Your task to perform on an android device: Open the phone app and click the voicemail tab. Image 0: 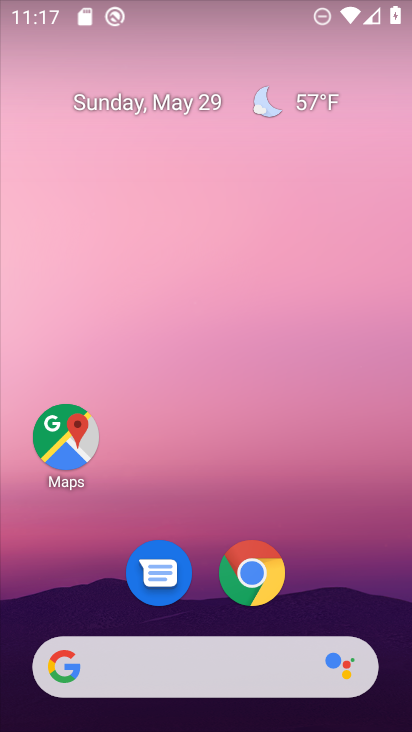
Step 0: drag from (283, 628) to (309, 5)
Your task to perform on an android device: Open the phone app and click the voicemail tab. Image 1: 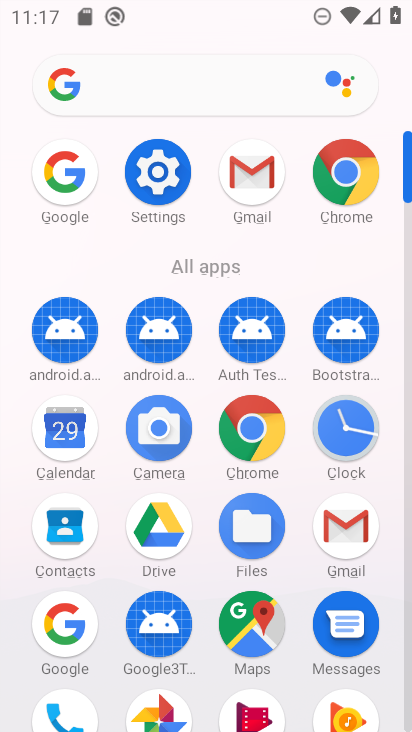
Step 1: click (78, 711)
Your task to perform on an android device: Open the phone app and click the voicemail tab. Image 2: 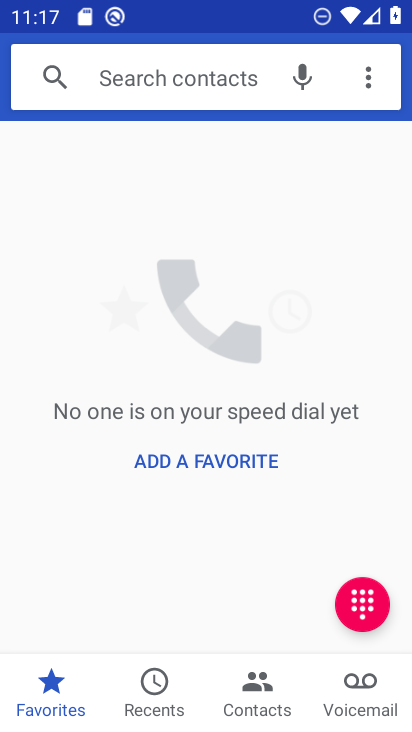
Step 2: click (381, 712)
Your task to perform on an android device: Open the phone app and click the voicemail tab. Image 3: 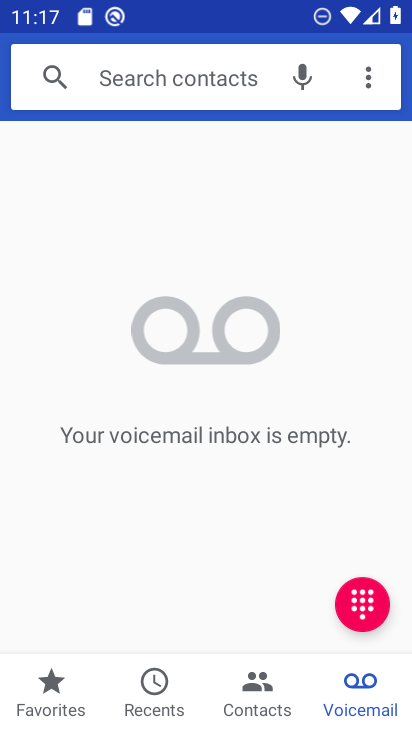
Step 3: task complete